Your task to perform on an android device: see creations saved in the google photos Image 0: 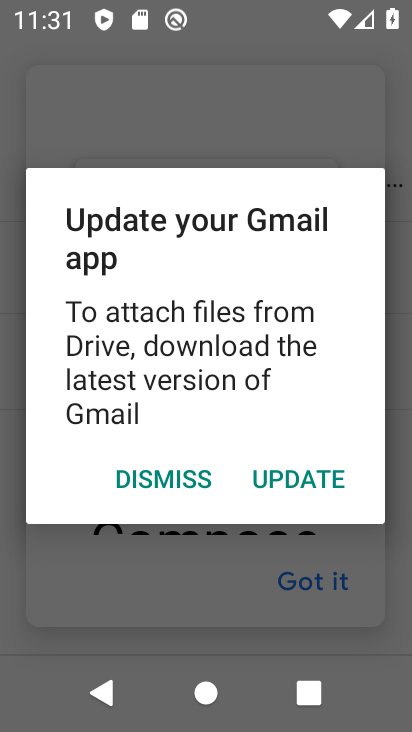
Step 0: press home button
Your task to perform on an android device: see creations saved in the google photos Image 1: 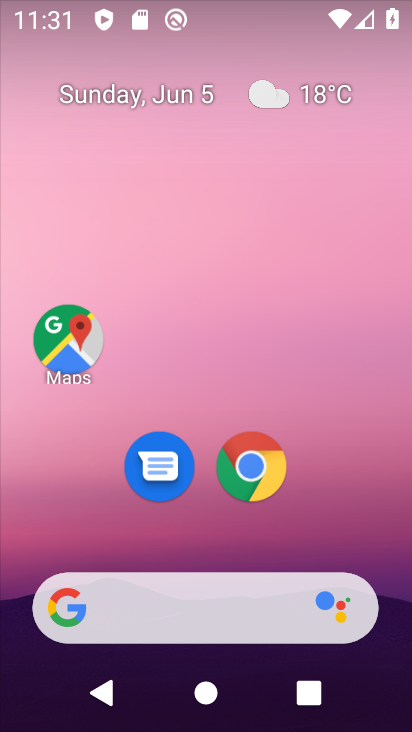
Step 1: drag from (338, 526) to (211, 43)
Your task to perform on an android device: see creations saved in the google photos Image 2: 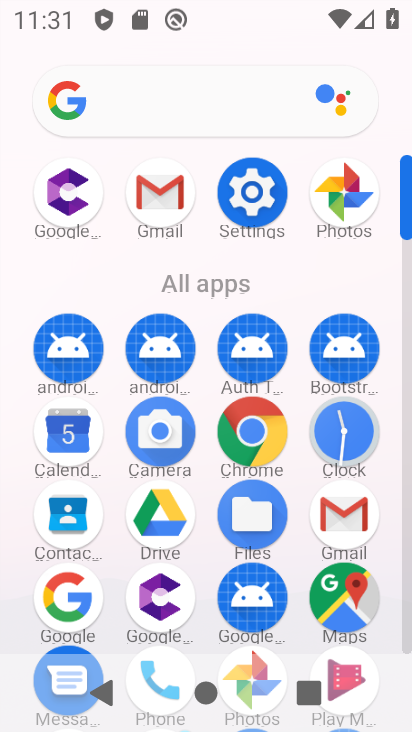
Step 2: drag from (8, 587) to (28, 290)
Your task to perform on an android device: see creations saved in the google photos Image 3: 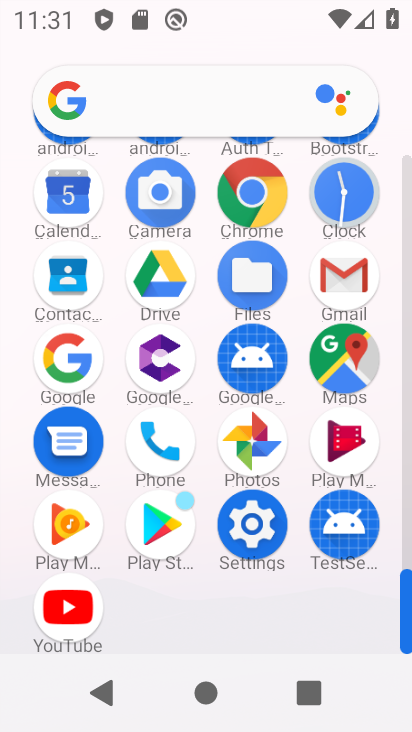
Step 3: click (256, 437)
Your task to perform on an android device: see creations saved in the google photos Image 4: 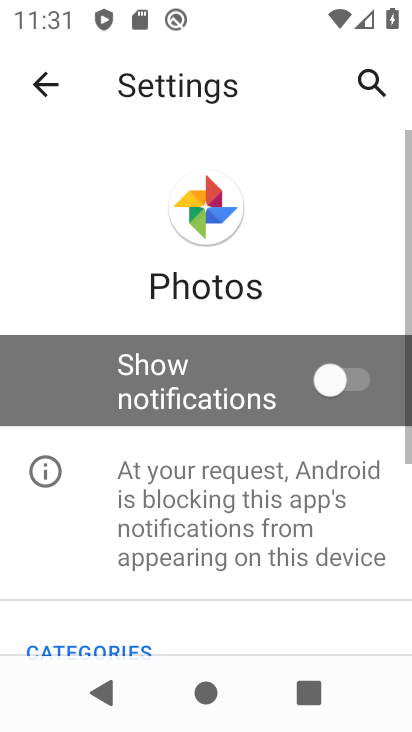
Step 4: click (39, 73)
Your task to perform on an android device: see creations saved in the google photos Image 5: 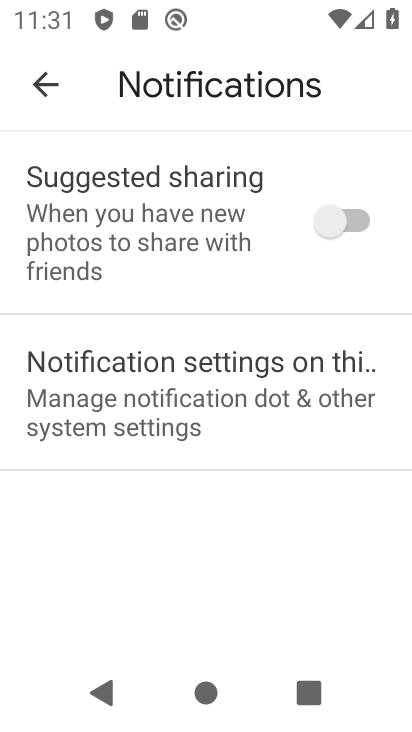
Step 5: click (39, 73)
Your task to perform on an android device: see creations saved in the google photos Image 6: 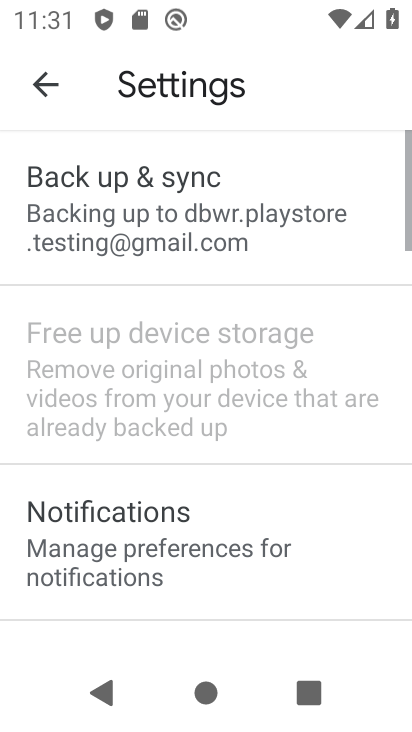
Step 6: click (39, 73)
Your task to perform on an android device: see creations saved in the google photos Image 7: 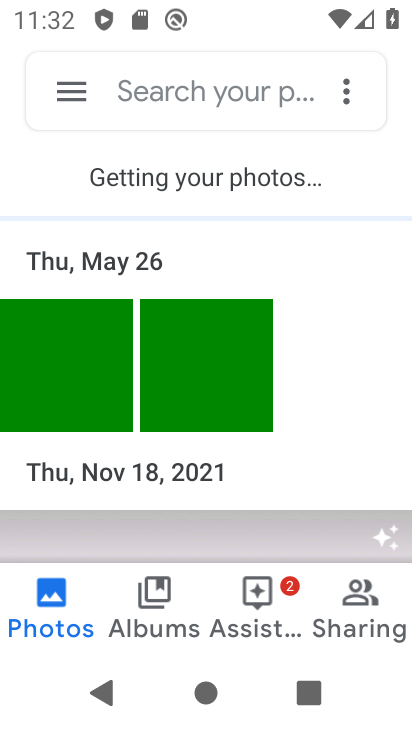
Step 7: task complete